Your task to perform on an android device: open a new tab in the chrome app Image 0: 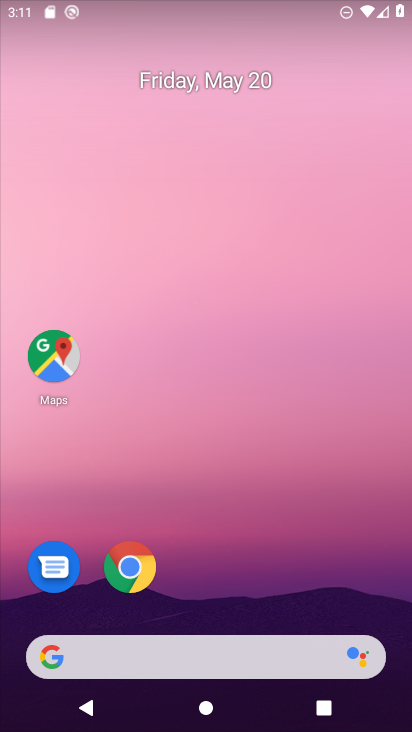
Step 0: click (124, 562)
Your task to perform on an android device: open a new tab in the chrome app Image 1: 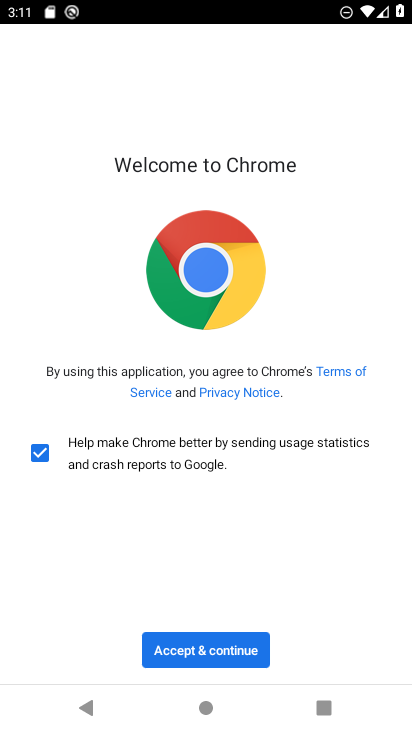
Step 1: click (222, 647)
Your task to perform on an android device: open a new tab in the chrome app Image 2: 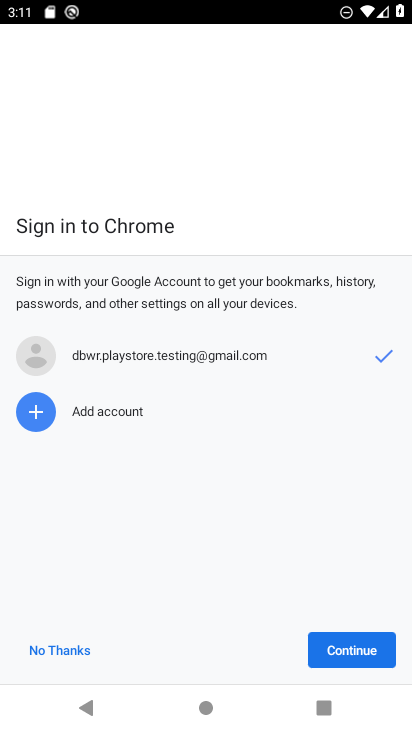
Step 2: click (360, 646)
Your task to perform on an android device: open a new tab in the chrome app Image 3: 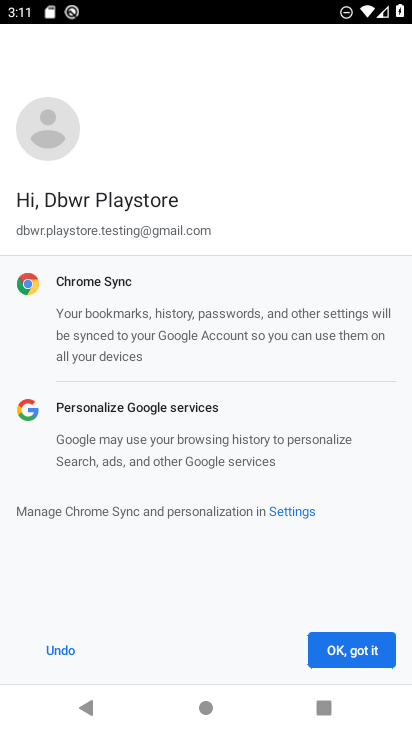
Step 3: click (338, 658)
Your task to perform on an android device: open a new tab in the chrome app Image 4: 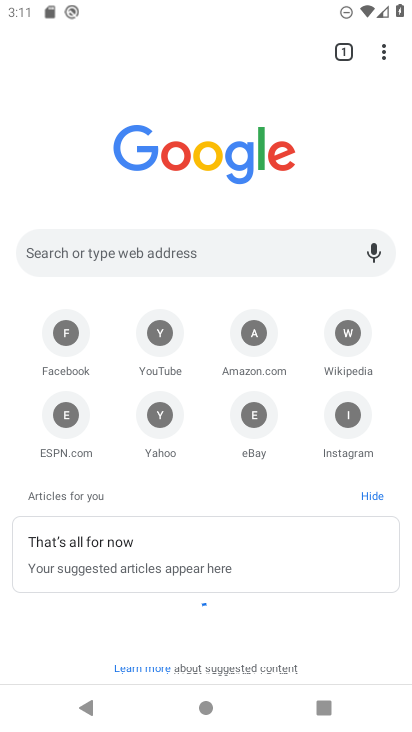
Step 4: click (383, 56)
Your task to perform on an android device: open a new tab in the chrome app Image 5: 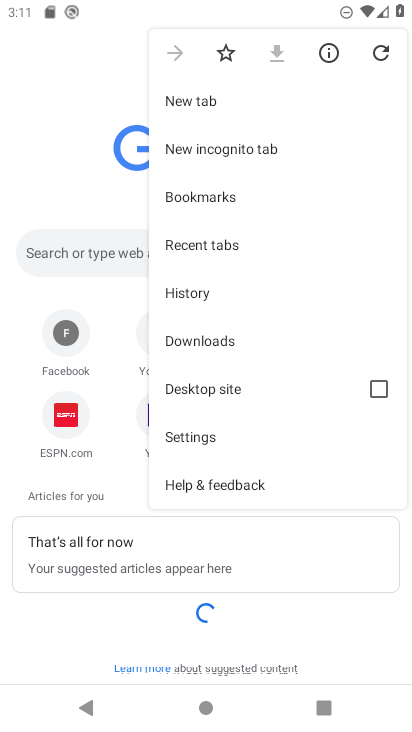
Step 5: click (195, 96)
Your task to perform on an android device: open a new tab in the chrome app Image 6: 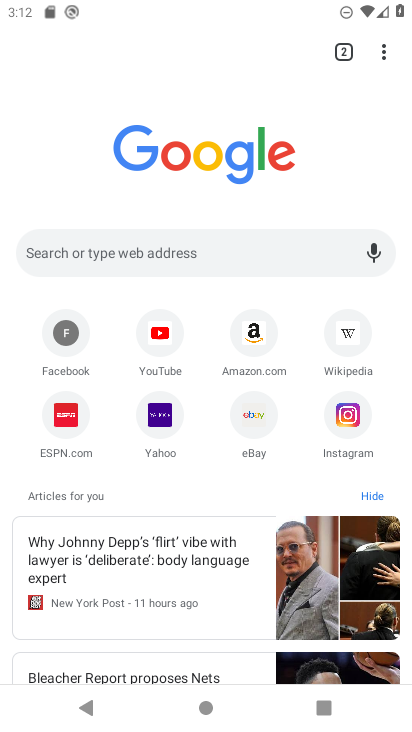
Step 6: task complete